Your task to perform on an android device: Open Yahoo.com Image 0: 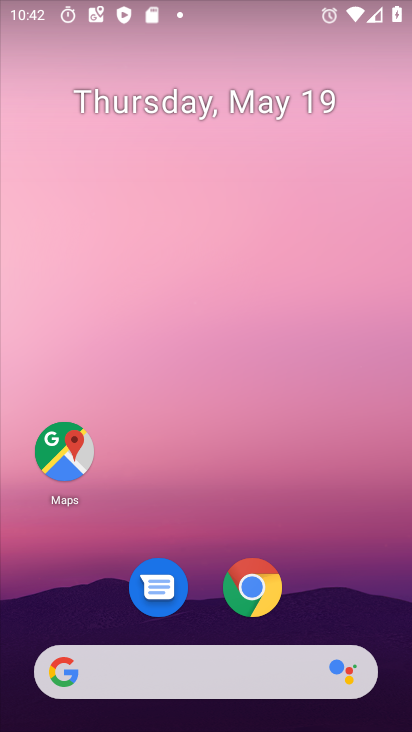
Step 0: drag from (330, 555) to (321, 137)
Your task to perform on an android device: Open Yahoo.com Image 1: 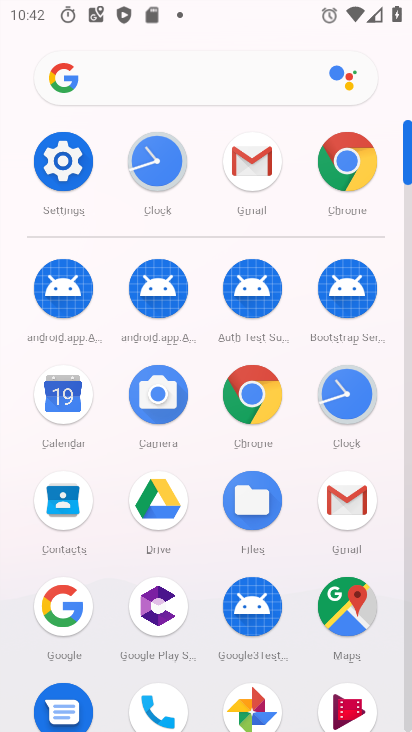
Step 1: click (339, 175)
Your task to perform on an android device: Open Yahoo.com Image 2: 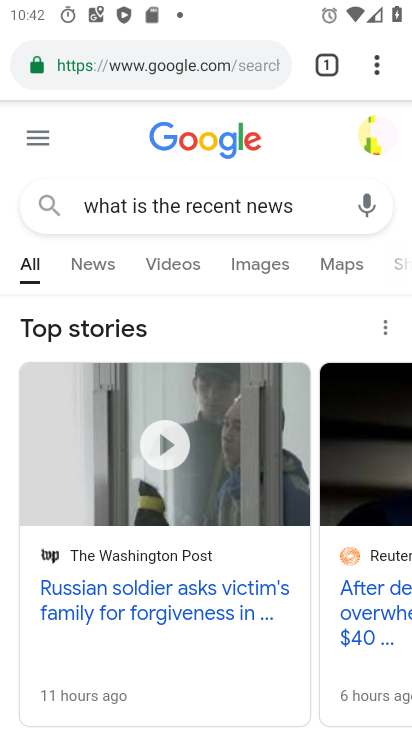
Step 2: click (189, 73)
Your task to perform on an android device: Open Yahoo.com Image 3: 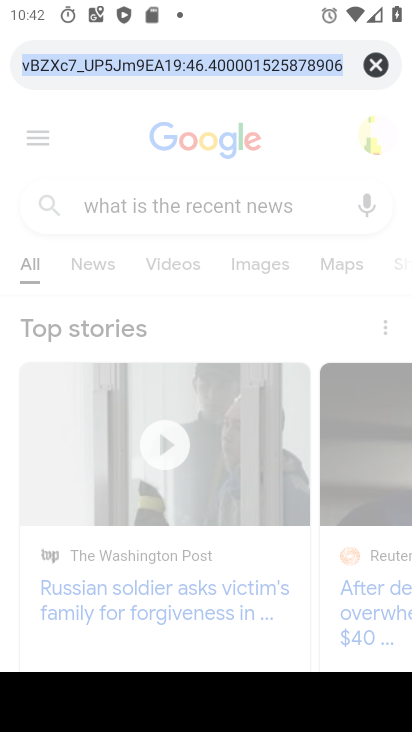
Step 3: click (373, 67)
Your task to perform on an android device: Open Yahoo.com Image 4: 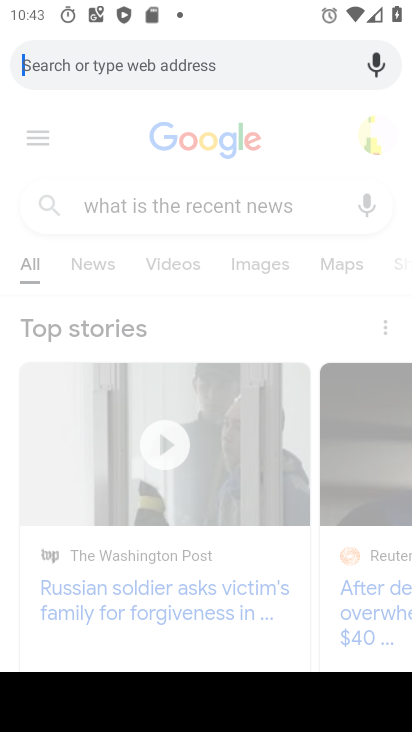
Step 4: type "yahoo.com"
Your task to perform on an android device: Open Yahoo.com Image 5: 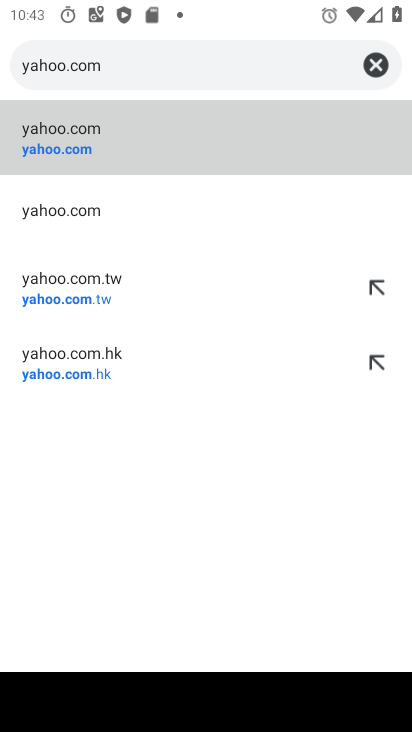
Step 5: click (63, 148)
Your task to perform on an android device: Open Yahoo.com Image 6: 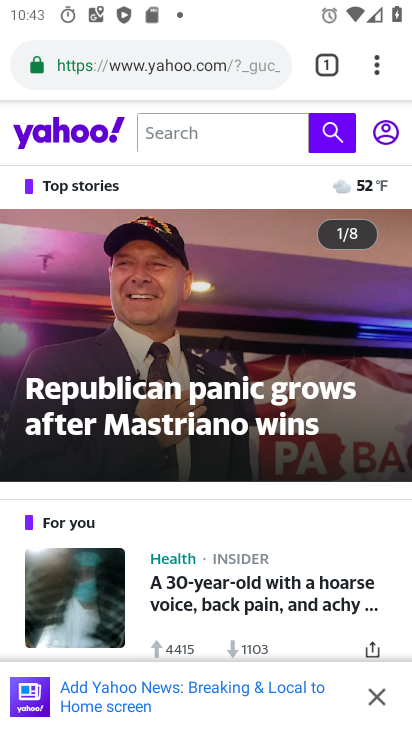
Step 6: task complete